Your task to perform on an android device: toggle pop-ups in chrome Image 0: 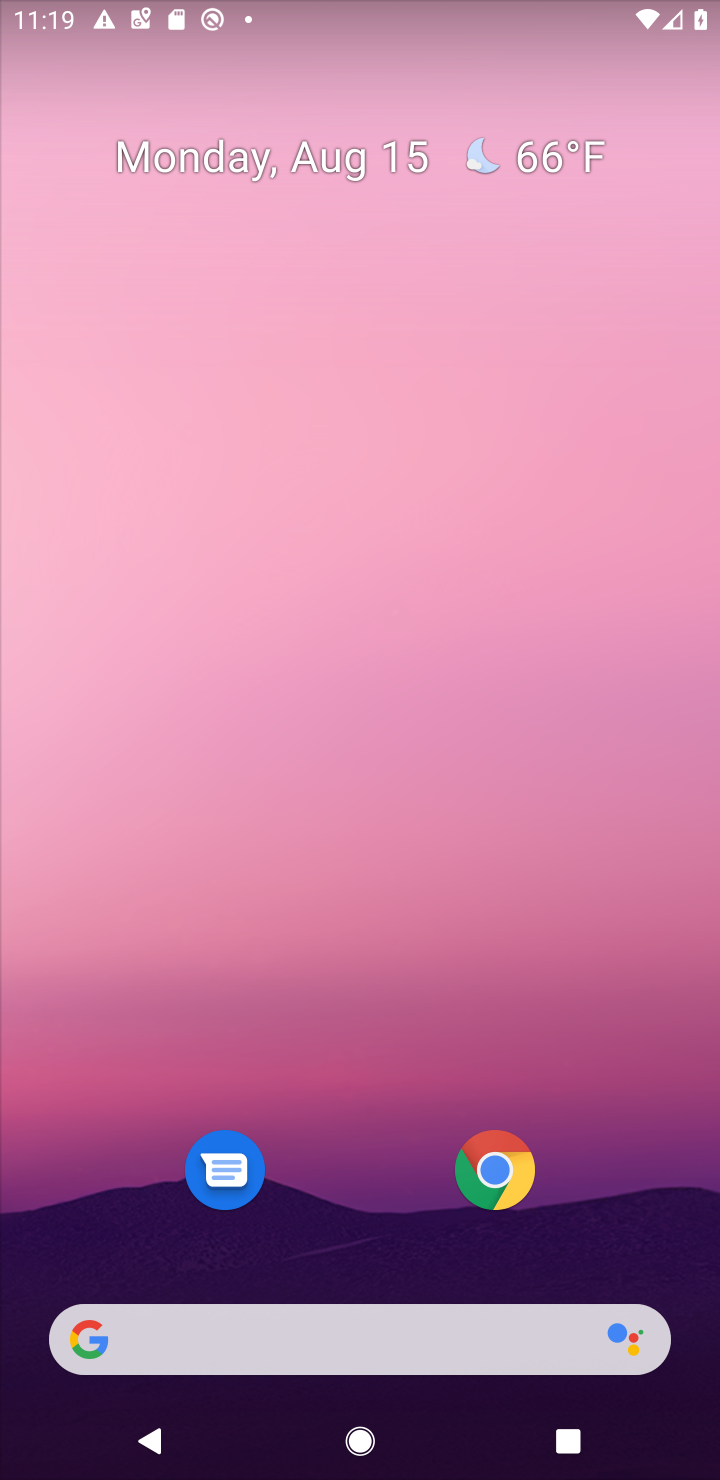
Step 0: press home button
Your task to perform on an android device: toggle pop-ups in chrome Image 1: 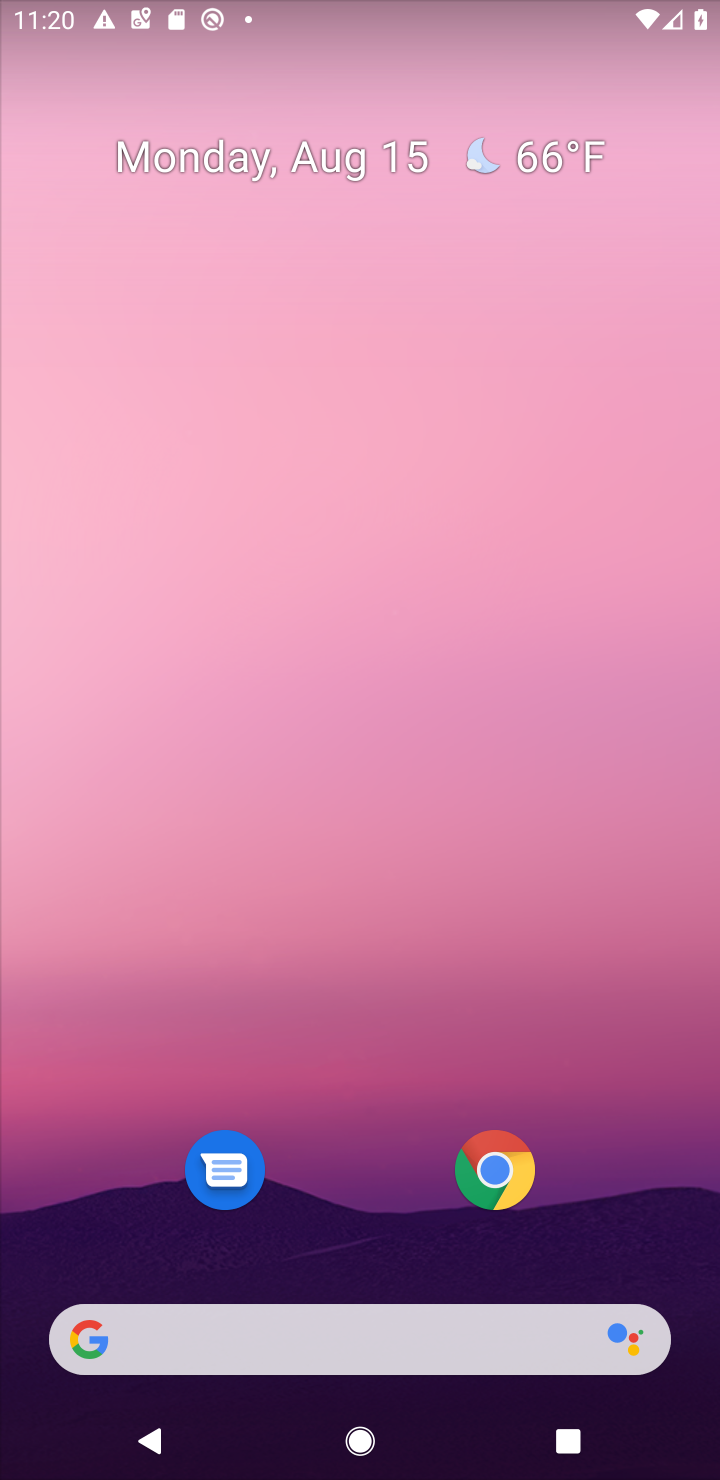
Step 1: click (489, 1163)
Your task to perform on an android device: toggle pop-ups in chrome Image 2: 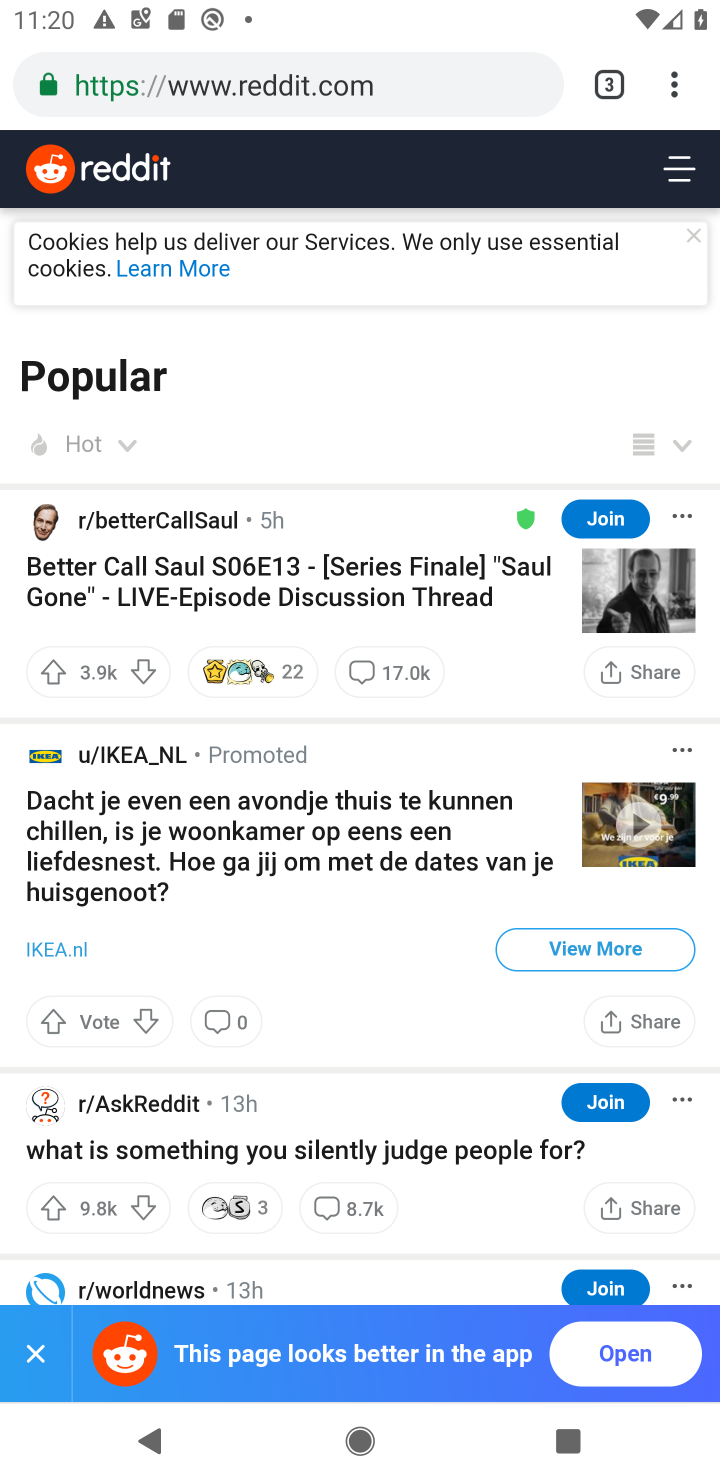
Step 2: click (665, 90)
Your task to perform on an android device: toggle pop-ups in chrome Image 3: 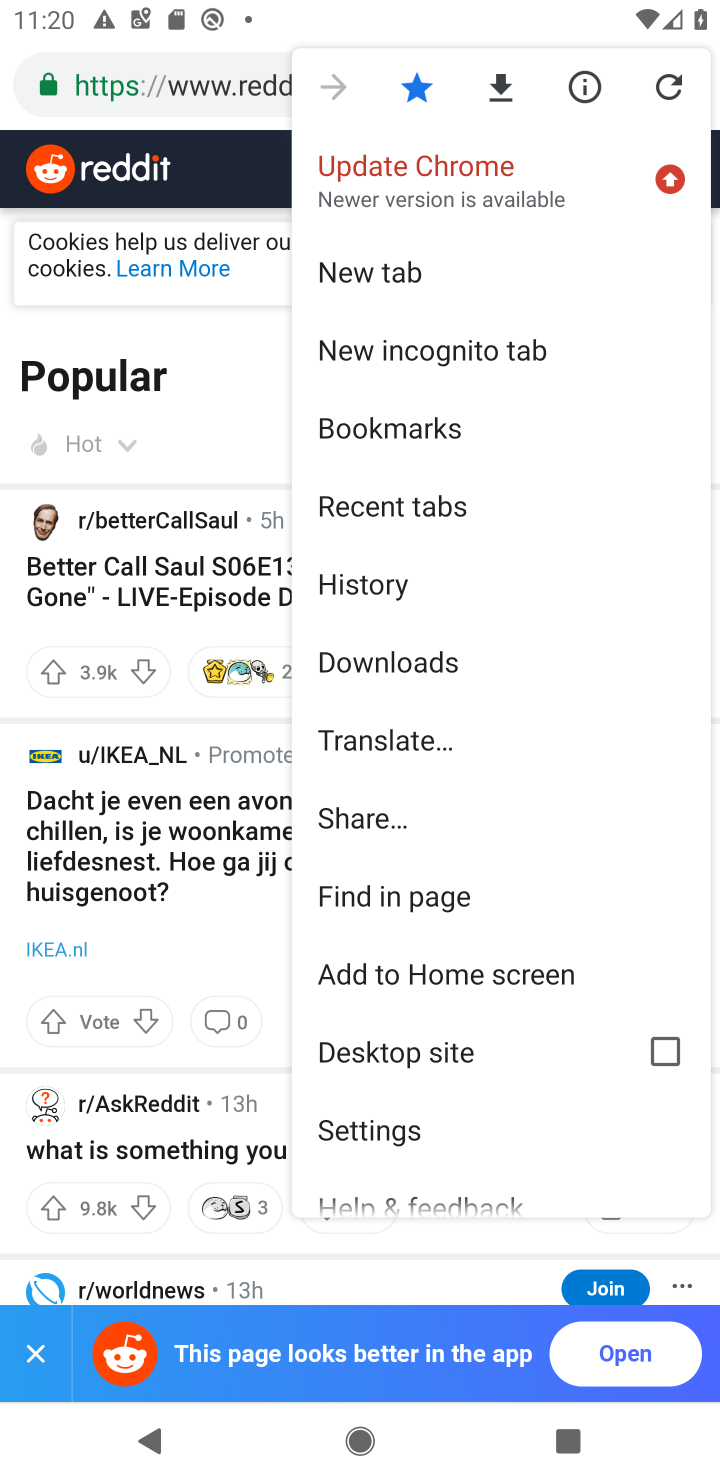
Step 3: click (430, 1120)
Your task to perform on an android device: toggle pop-ups in chrome Image 4: 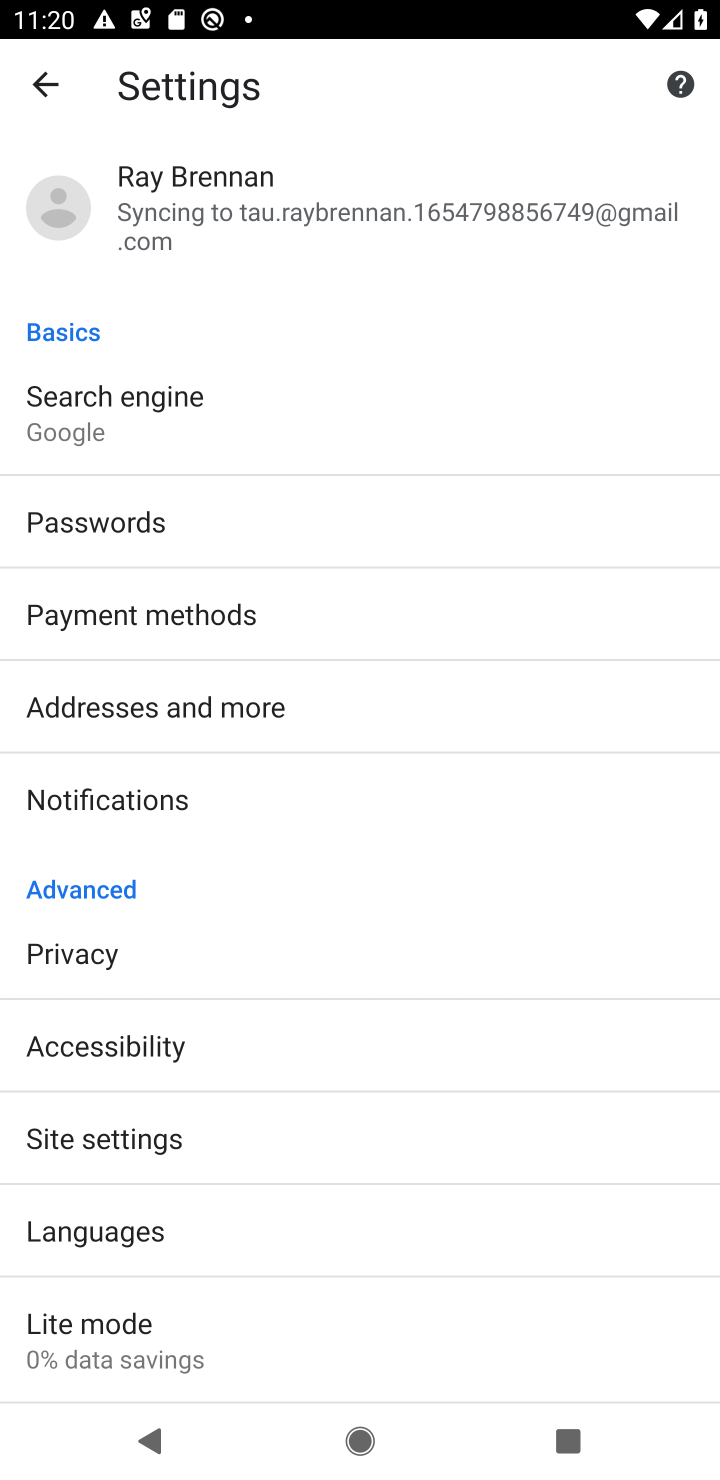
Step 4: click (210, 1137)
Your task to perform on an android device: toggle pop-ups in chrome Image 5: 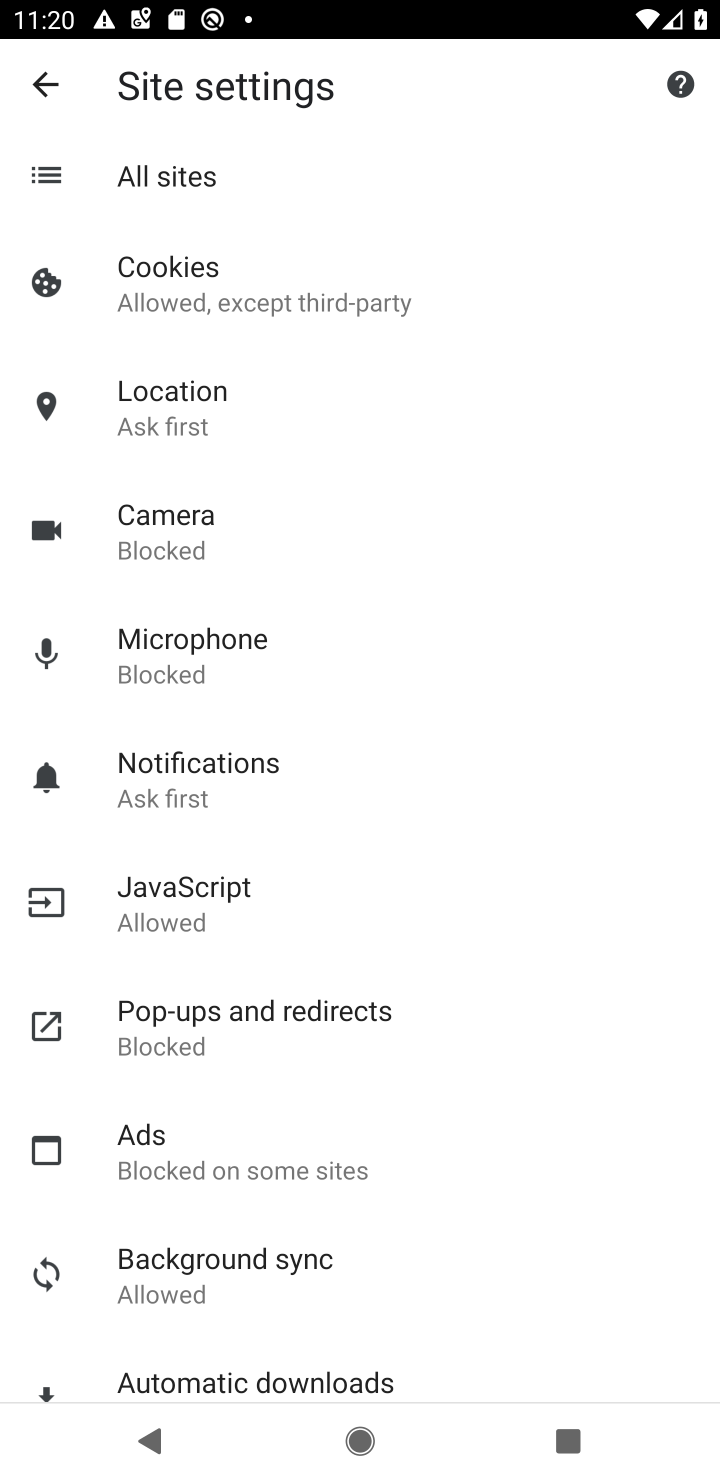
Step 5: click (231, 1034)
Your task to perform on an android device: toggle pop-ups in chrome Image 6: 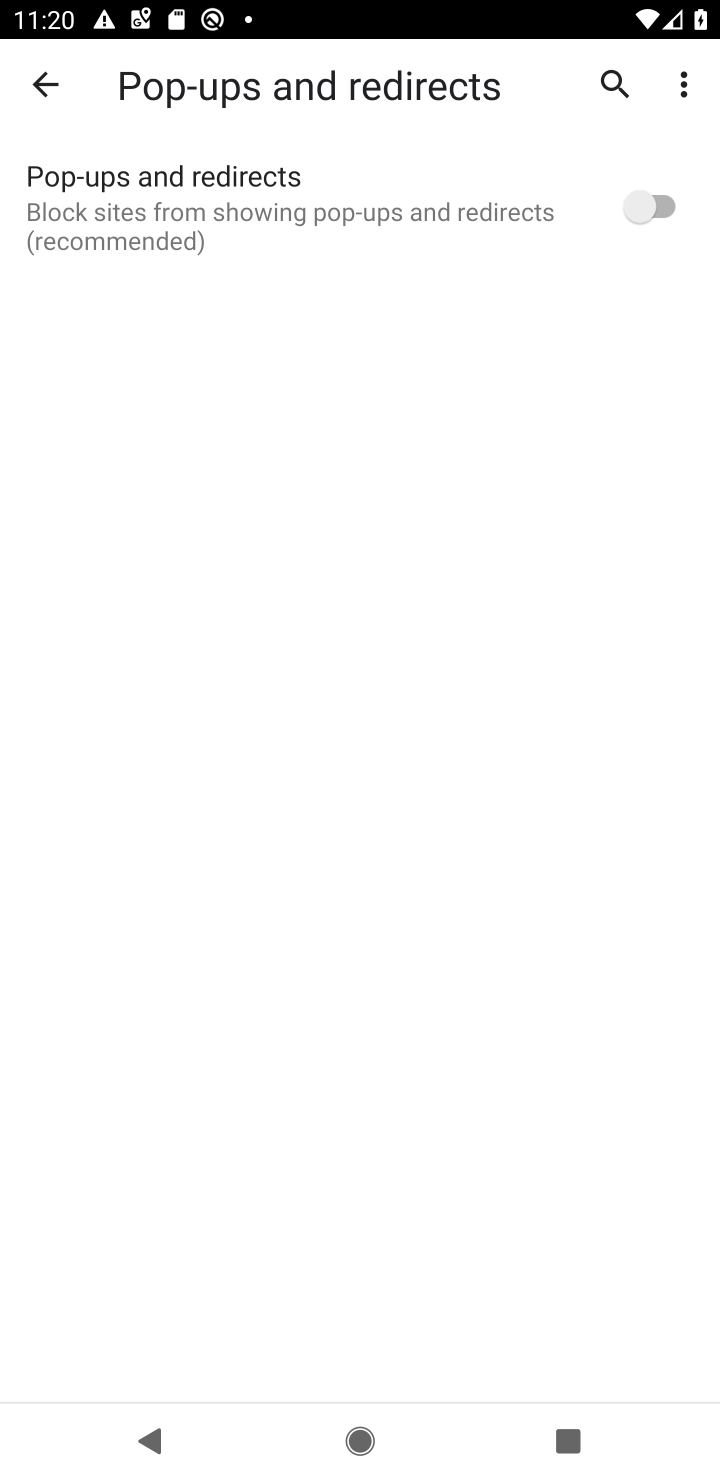
Step 6: click (666, 191)
Your task to perform on an android device: toggle pop-ups in chrome Image 7: 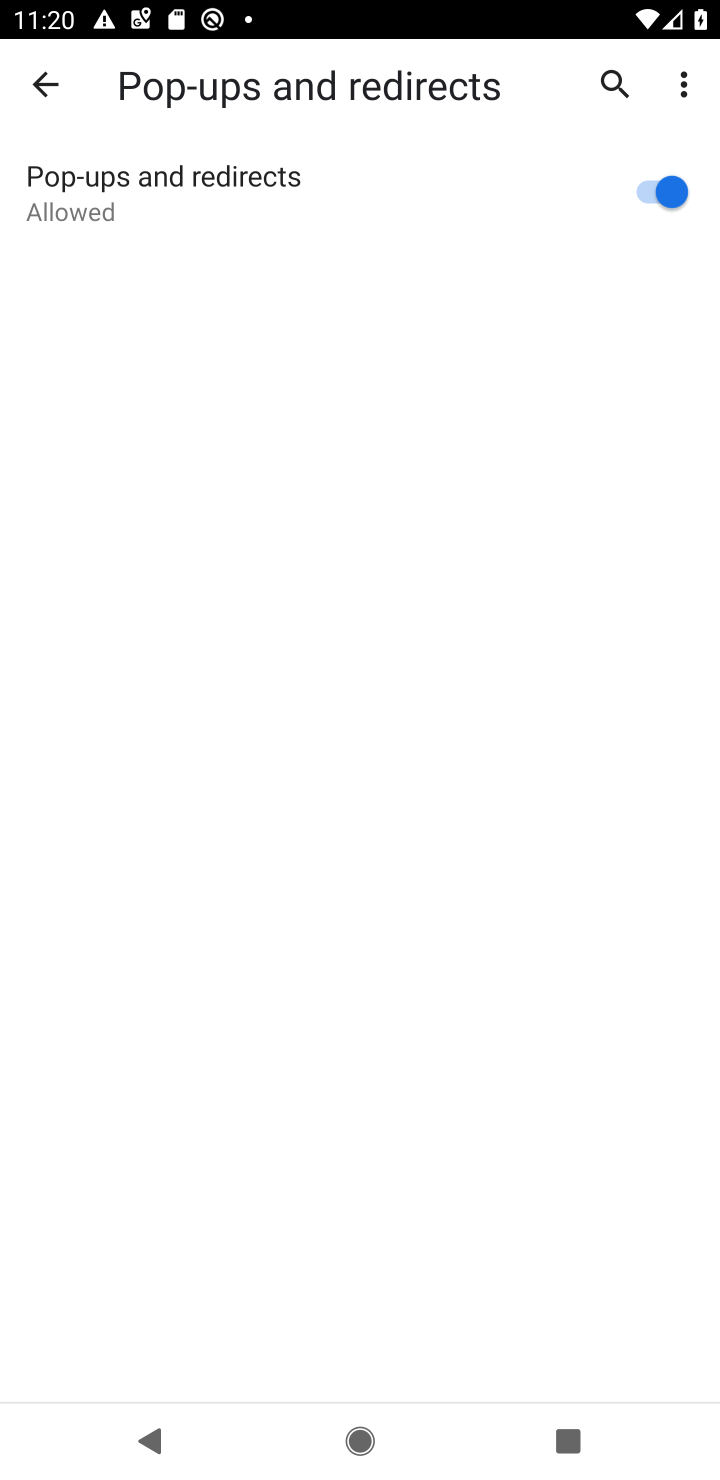
Step 7: task complete